Your task to perform on an android device: set the timer Image 0: 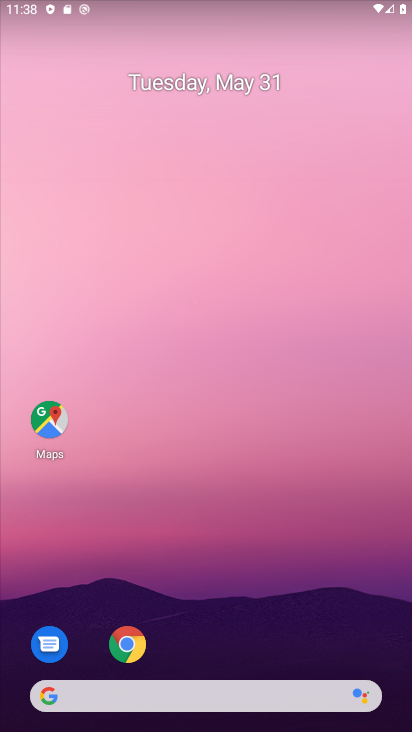
Step 0: drag from (349, 585) to (320, 182)
Your task to perform on an android device: set the timer Image 1: 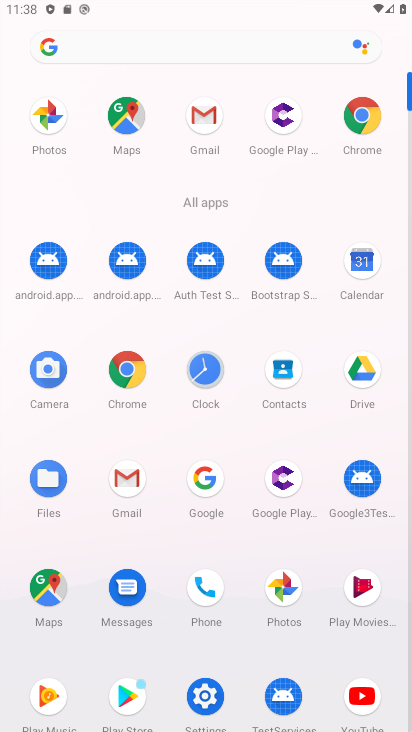
Step 1: click (204, 392)
Your task to perform on an android device: set the timer Image 2: 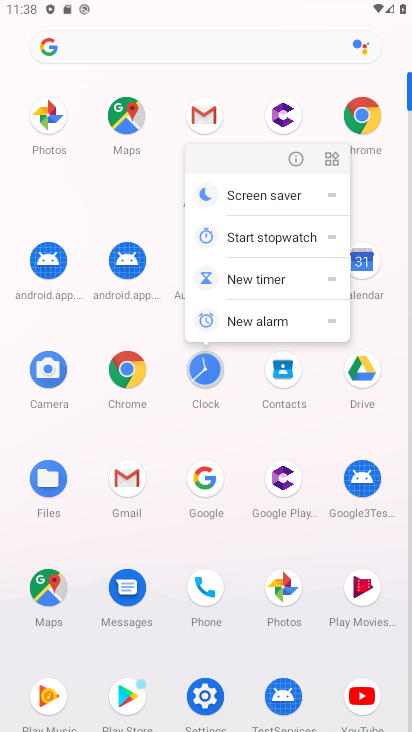
Step 2: click (205, 385)
Your task to perform on an android device: set the timer Image 3: 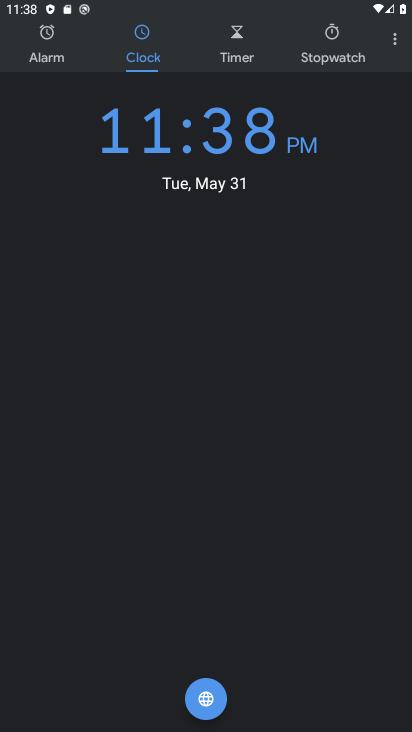
Step 3: click (389, 52)
Your task to perform on an android device: set the timer Image 4: 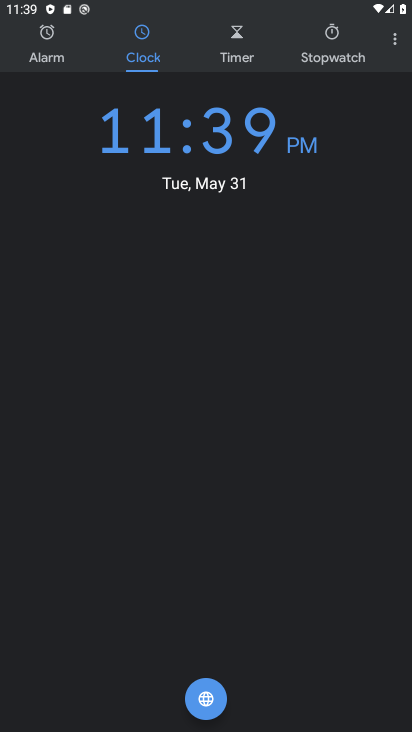
Step 4: click (261, 57)
Your task to perform on an android device: set the timer Image 5: 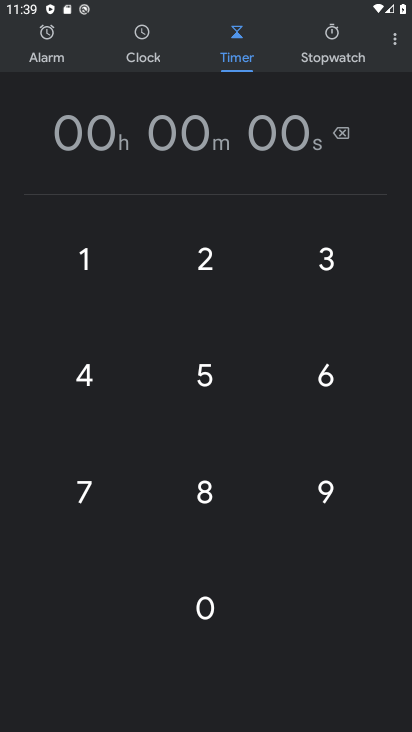
Step 5: click (86, 250)
Your task to perform on an android device: set the timer Image 6: 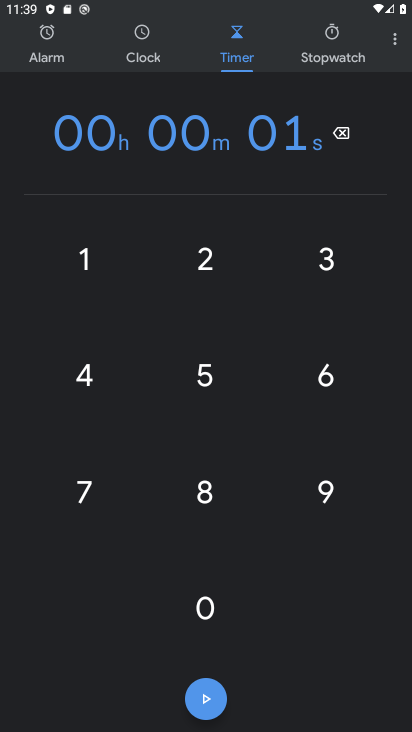
Step 6: click (201, 381)
Your task to perform on an android device: set the timer Image 7: 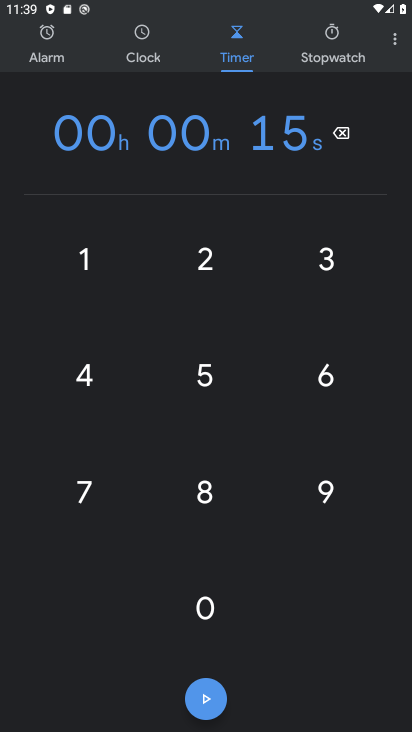
Step 7: click (202, 707)
Your task to perform on an android device: set the timer Image 8: 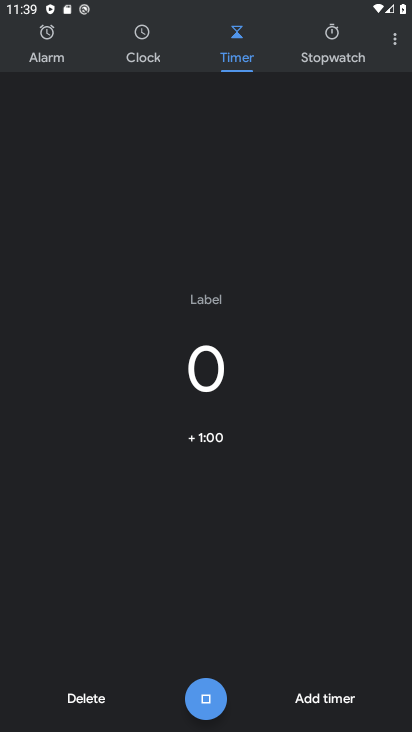
Step 8: click (211, 707)
Your task to perform on an android device: set the timer Image 9: 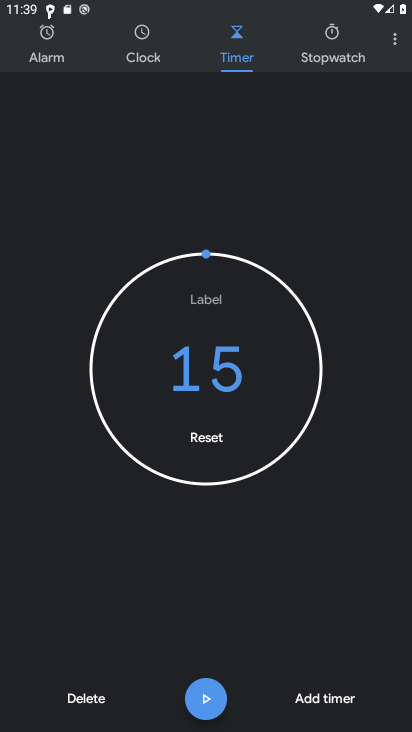
Step 9: click (68, 110)
Your task to perform on an android device: set the timer Image 10: 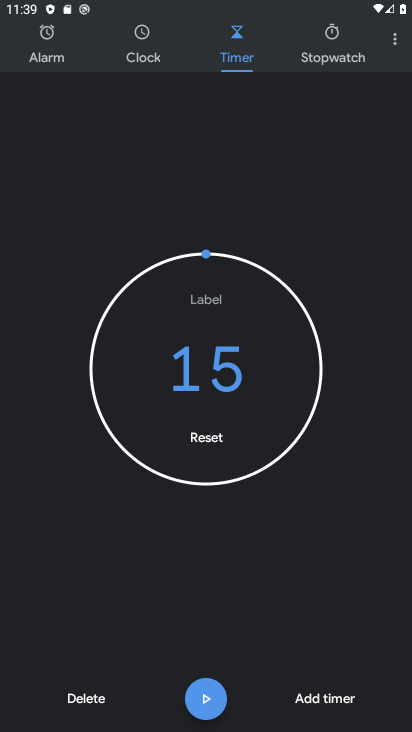
Step 10: task complete